Your task to perform on an android device: What's the weather? Image 0: 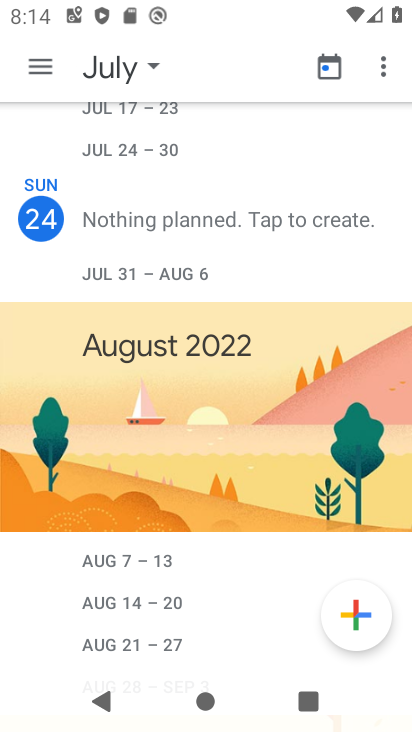
Step 0: press home button
Your task to perform on an android device: What's the weather? Image 1: 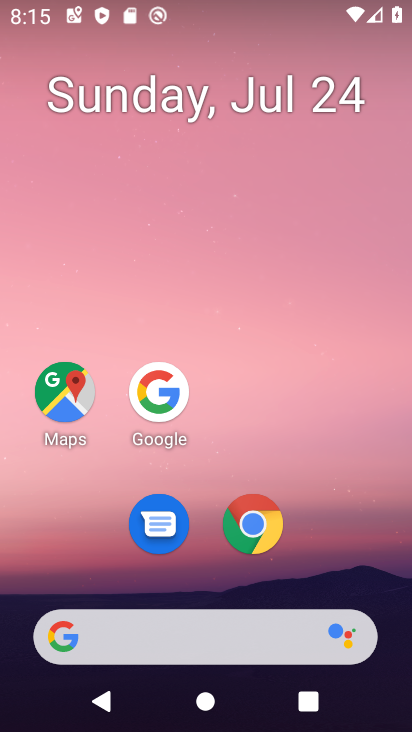
Step 1: click (153, 636)
Your task to perform on an android device: What's the weather? Image 2: 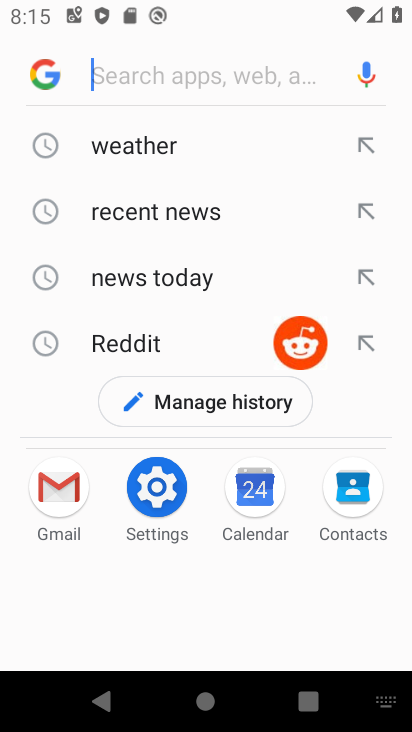
Step 2: click (127, 149)
Your task to perform on an android device: What's the weather? Image 3: 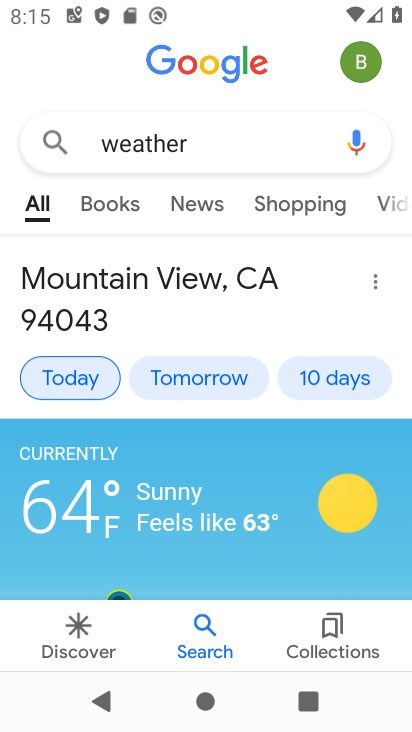
Step 3: task complete